Your task to perform on an android device: turn on showing notifications on the lock screen Image 0: 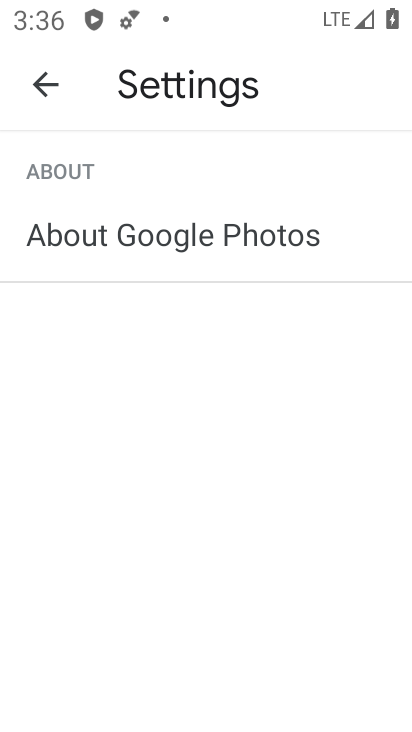
Step 0: press home button
Your task to perform on an android device: turn on showing notifications on the lock screen Image 1: 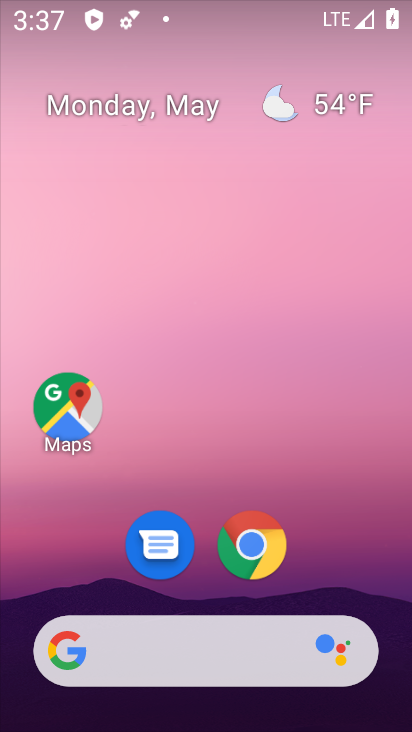
Step 1: drag from (395, 672) to (337, 184)
Your task to perform on an android device: turn on showing notifications on the lock screen Image 2: 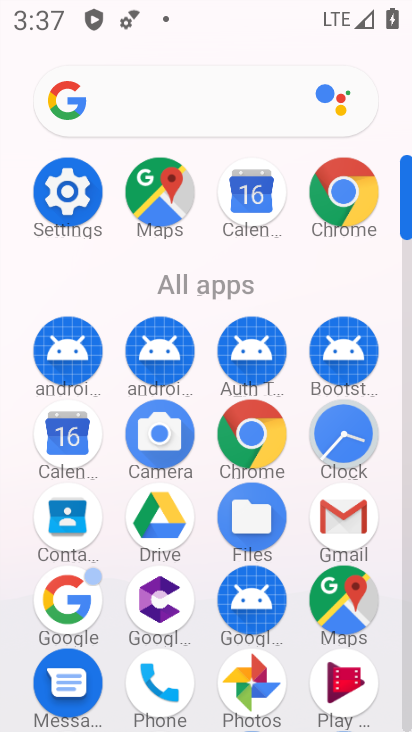
Step 2: click (405, 697)
Your task to perform on an android device: turn on showing notifications on the lock screen Image 3: 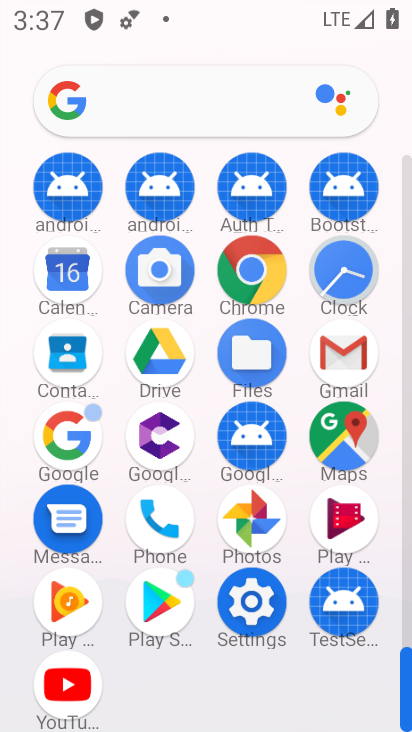
Step 3: click (250, 597)
Your task to perform on an android device: turn on showing notifications on the lock screen Image 4: 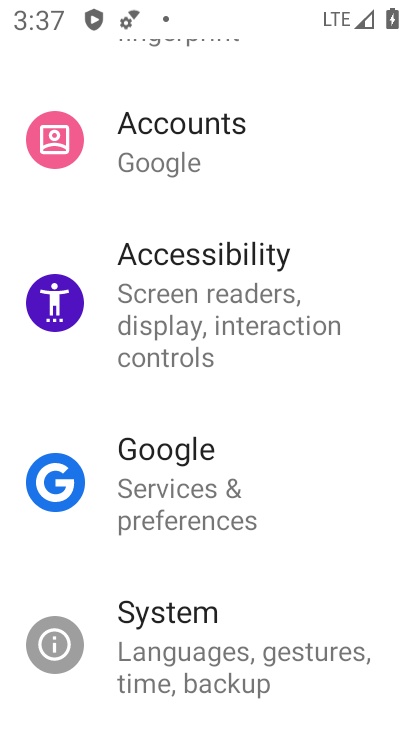
Step 4: click (345, 480)
Your task to perform on an android device: turn on showing notifications on the lock screen Image 5: 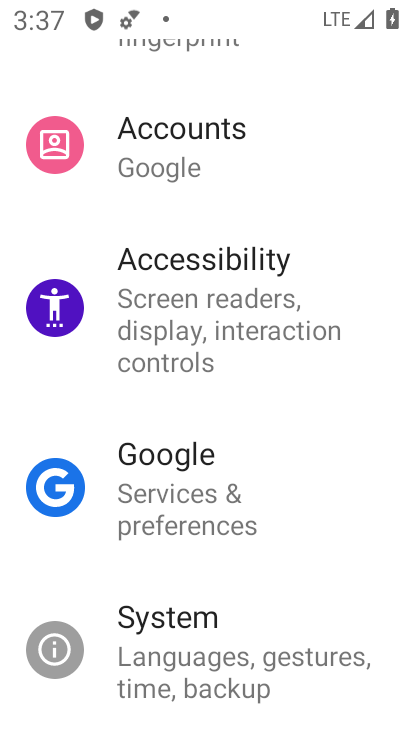
Step 5: drag from (344, 207) to (337, 550)
Your task to perform on an android device: turn on showing notifications on the lock screen Image 6: 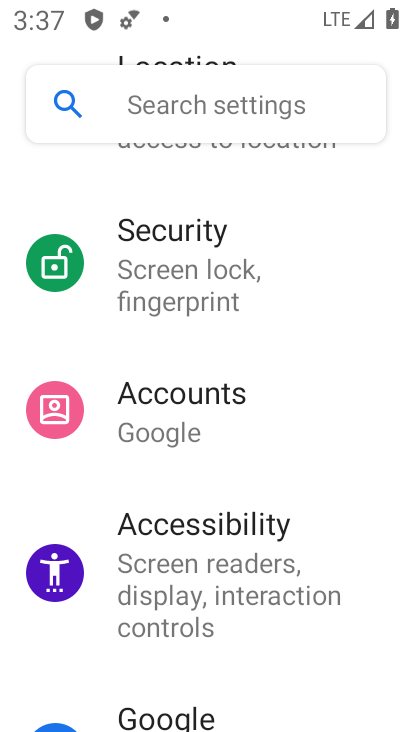
Step 6: drag from (316, 267) to (321, 624)
Your task to perform on an android device: turn on showing notifications on the lock screen Image 7: 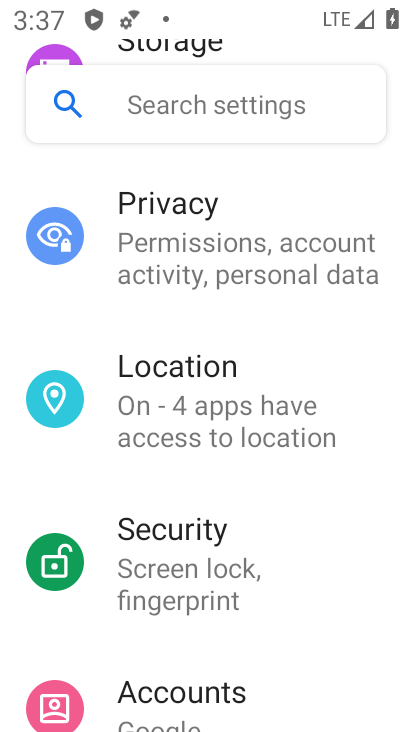
Step 7: drag from (300, 286) to (292, 651)
Your task to perform on an android device: turn on showing notifications on the lock screen Image 8: 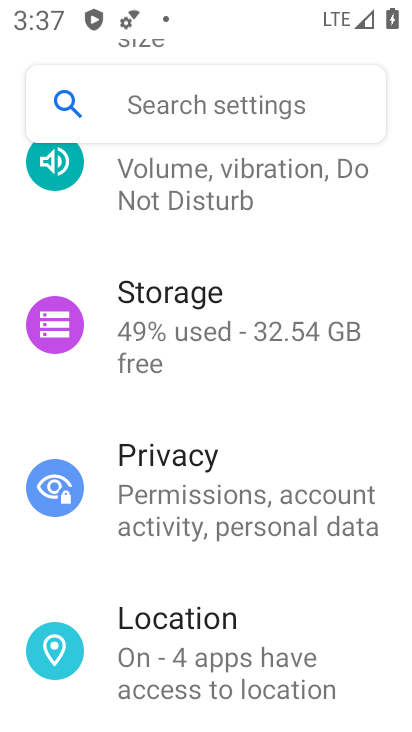
Step 8: drag from (301, 280) to (298, 623)
Your task to perform on an android device: turn on showing notifications on the lock screen Image 9: 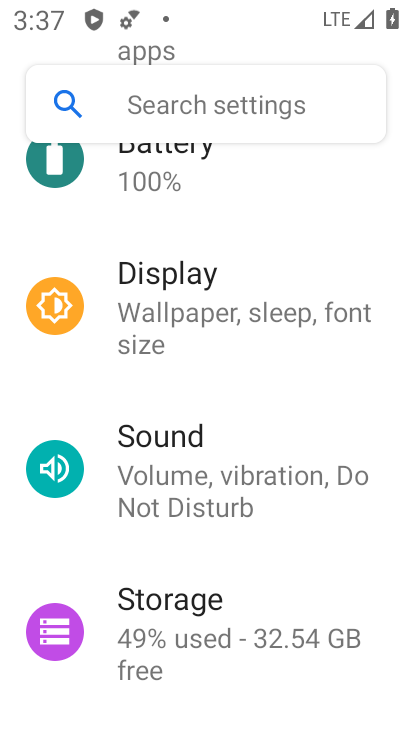
Step 9: drag from (308, 307) to (301, 664)
Your task to perform on an android device: turn on showing notifications on the lock screen Image 10: 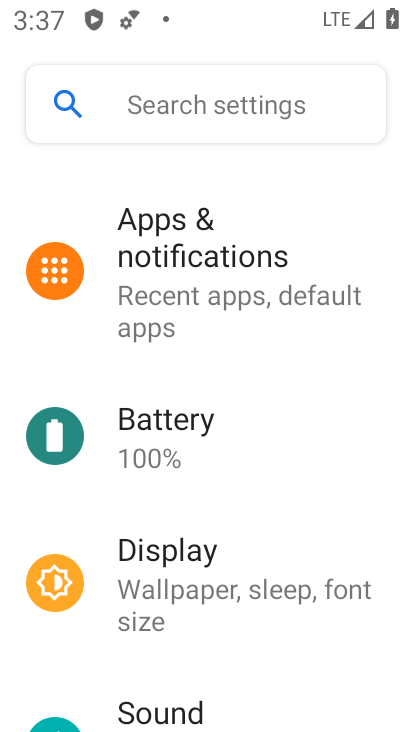
Step 10: click (172, 246)
Your task to perform on an android device: turn on showing notifications on the lock screen Image 11: 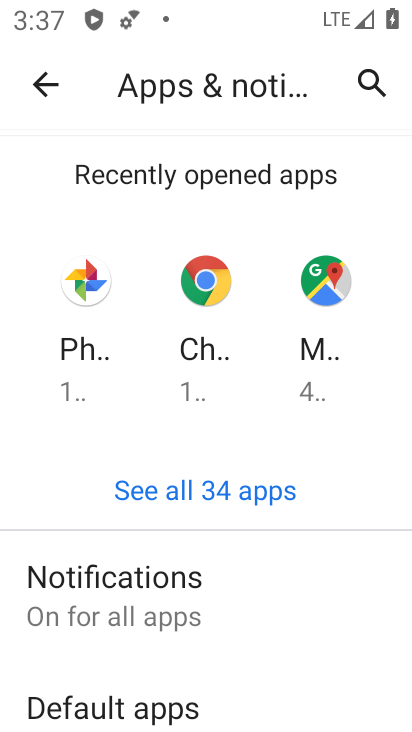
Step 11: drag from (231, 645) to (305, 408)
Your task to perform on an android device: turn on showing notifications on the lock screen Image 12: 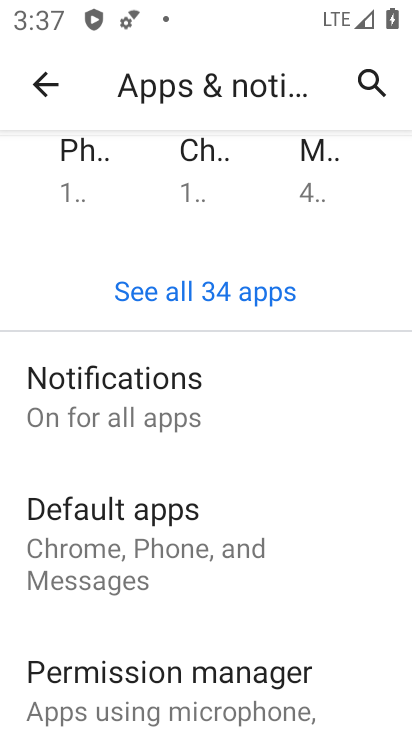
Step 12: click (111, 386)
Your task to perform on an android device: turn on showing notifications on the lock screen Image 13: 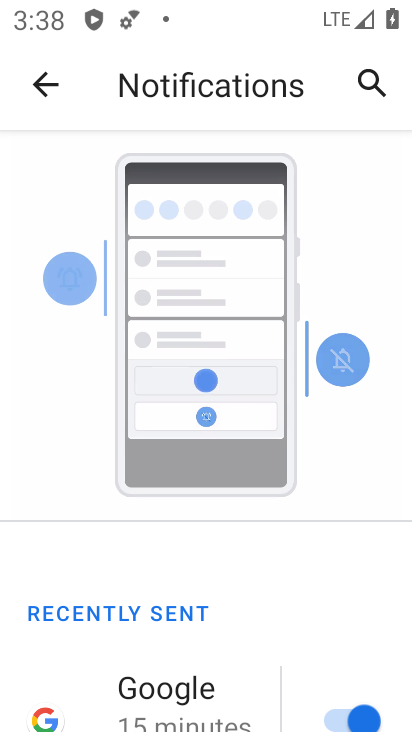
Step 13: drag from (284, 698) to (208, 148)
Your task to perform on an android device: turn on showing notifications on the lock screen Image 14: 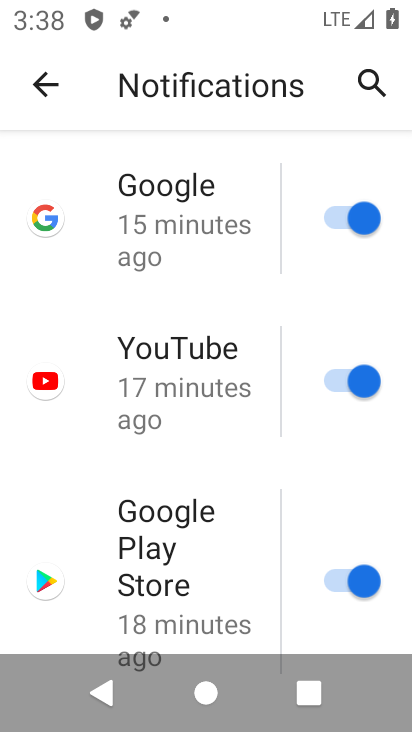
Step 14: drag from (267, 651) to (235, 43)
Your task to perform on an android device: turn on showing notifications on the lock screen Image 15: 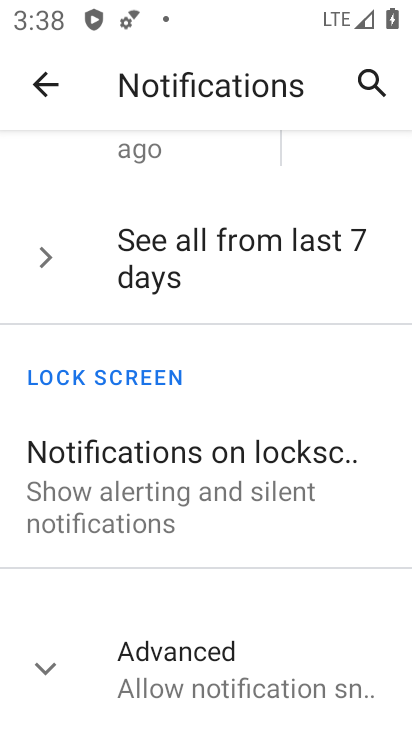
Step 15: click (176, 462)
Your task to perform on an android device: turn on showing notifications on the lock screen Image 16: 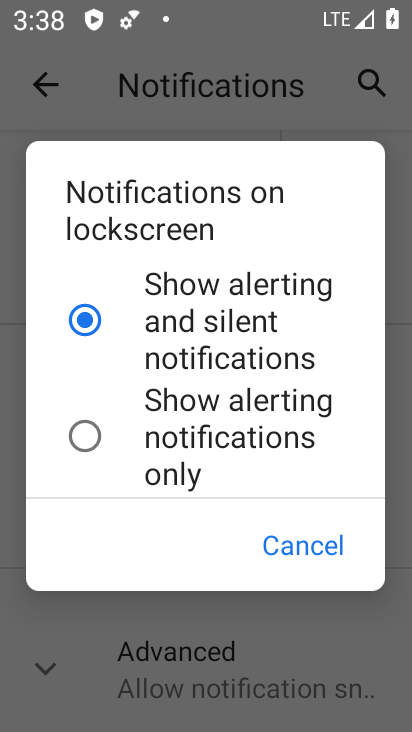
Step 16: task complete